Your task to perform on an android device: find snoozed emails in the gmail app Image 0: 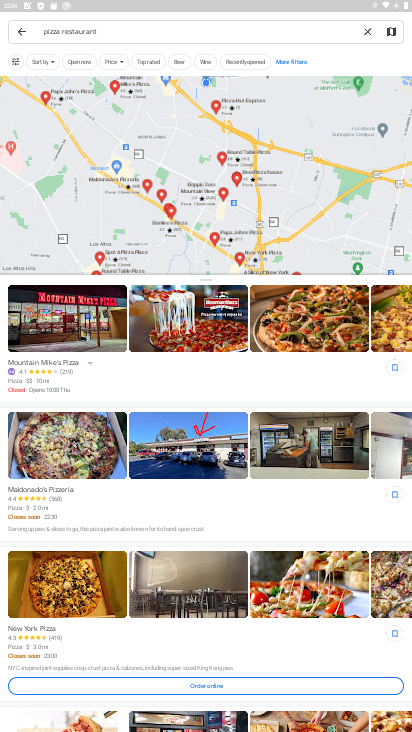
Step 0: press home button
Your task to perform on an android device: find snoozed emails in the gmail app Image 1: 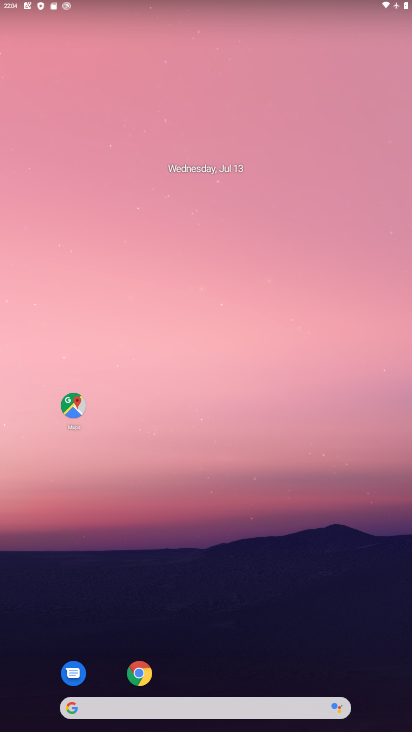
Step 1: drag from (199, 662) to (242, 210)
Your task to perform on an android device: find snoozed emails in the gmail app Image 2: 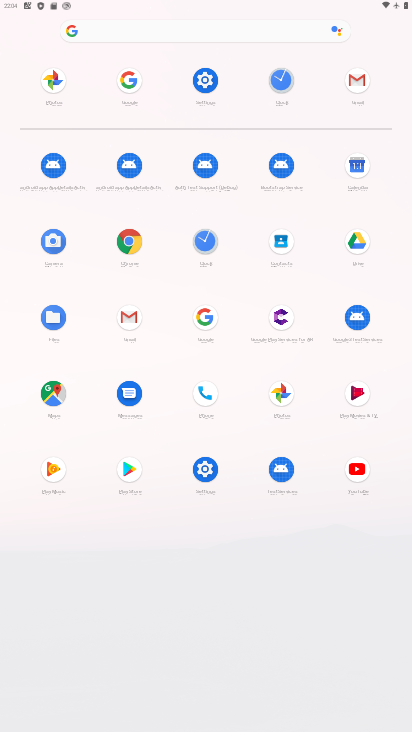
Step 2: click (355, 85)
Your task to perform on an android device: find snoozed emails in the gmail app Image 3: 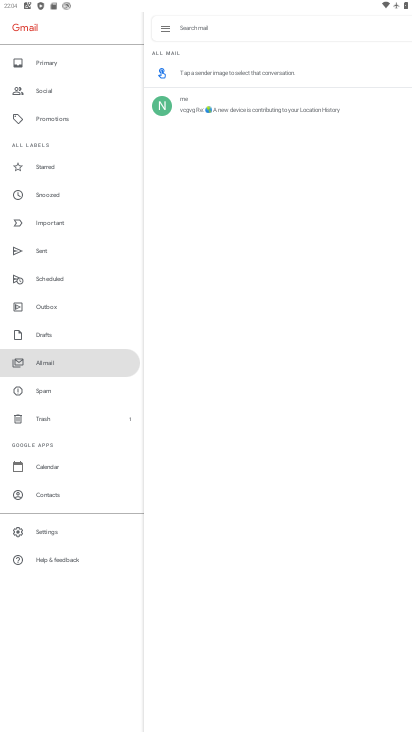
Step 3: click (54, 194)
Your task to perform on an android device: find snoozed emails in the gmail app Image 4: 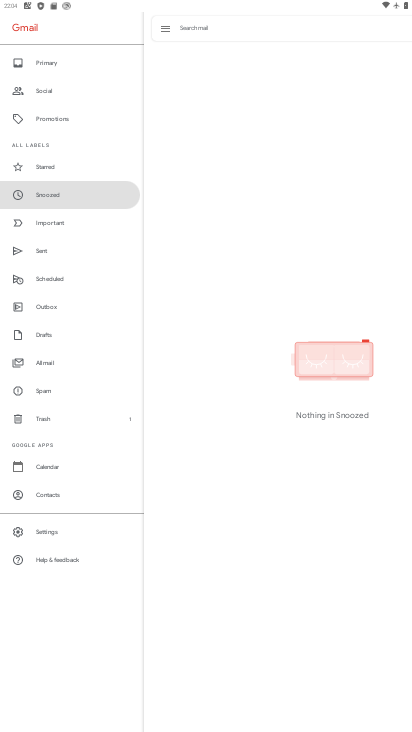
Step 4: task complete